Your task to perform on an android device: Open calendar and show me the fourth week of next month Image 0: 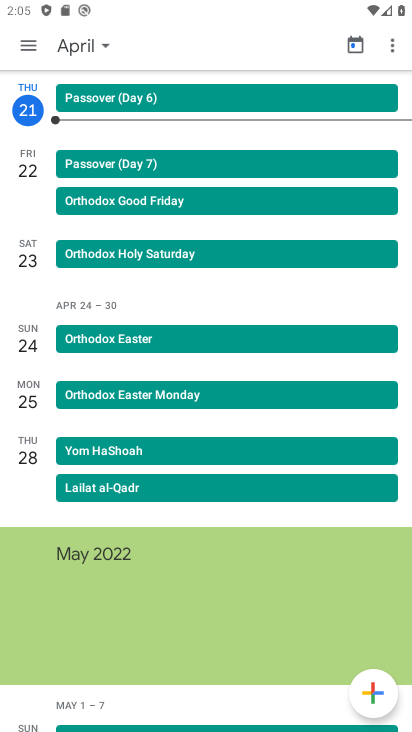
Step 0: press home button
Your task to perform on an android device: Open calendar and show me the fourth week of next month Image 1: 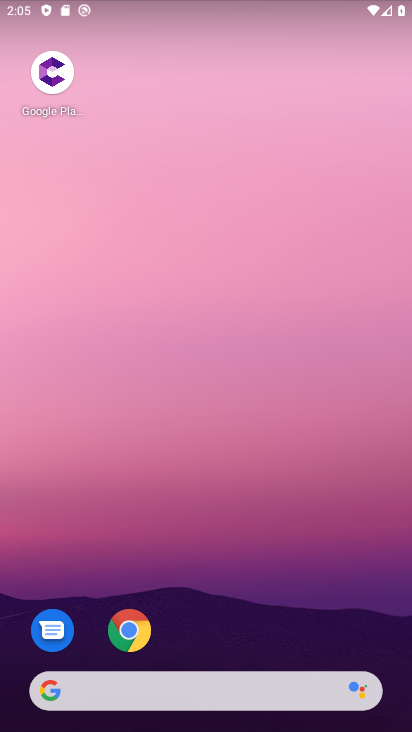
Step 1: drag from (243, 590) to (277, 198)
Your task to perform on an android device: Open calendar and show me the fourth week of next month Image 2: 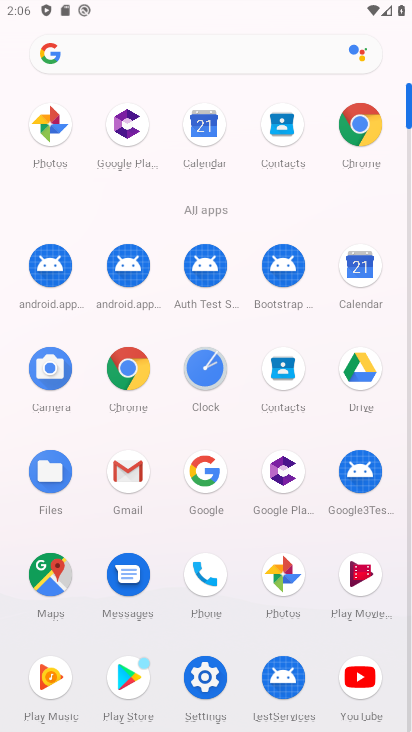
Step 2: click (350, 271)
Your task to perform on an android device: Open calendar and show me the fourth week of next month Image 3: 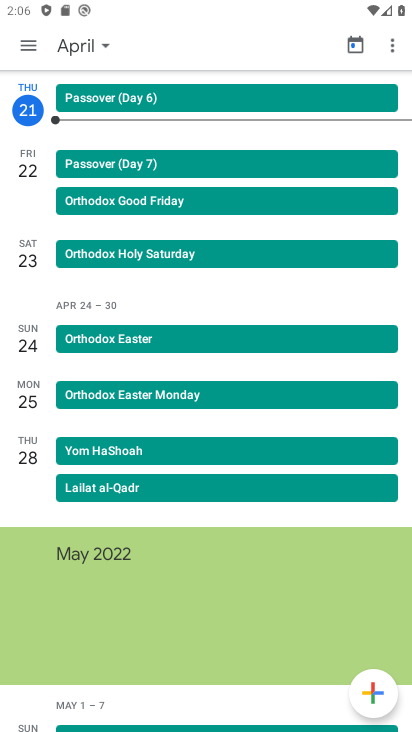
Step 3: click (112, 34)
Your task to perform on an android device: Open calendar and show me the fourth week of next month Image 4: 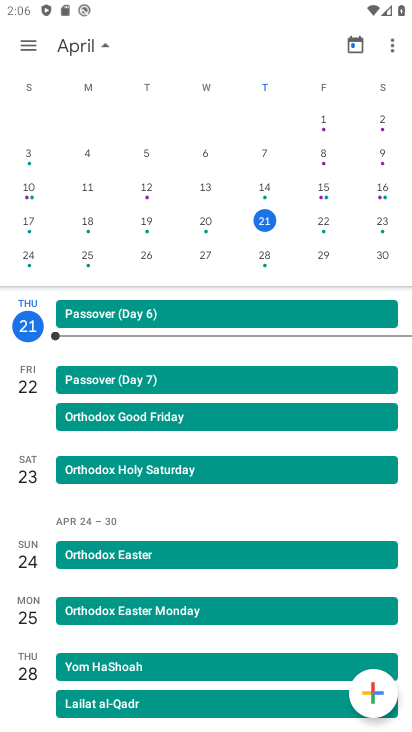
Step 4: drag from (391, 240) to (2, 368)
Your task to perform on an android device: Open calendar and show me the fourth week of next month Image 5: 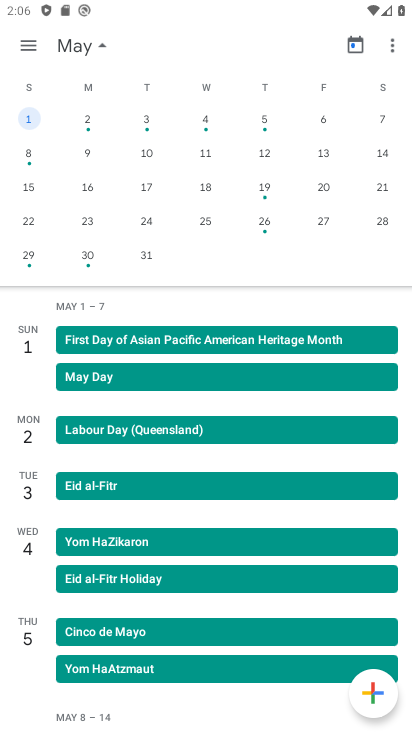
Step 5: click (142, 222)
Your task to perform on an android device: Open calendar and show me the fourth week of next month Image 6: 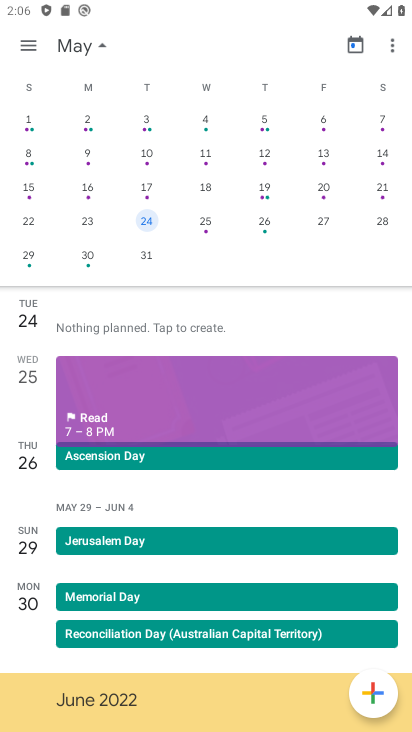
Step 6: task complete